Your task to perform on an android device: turn off wifi Image 0: 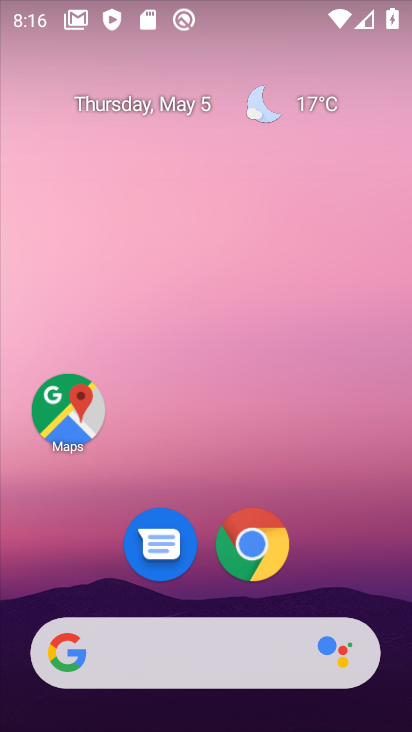
Step 0: drag from (351, 568) to (268, 1)
Your task to perform on an android device: turn off wifi Image 1: 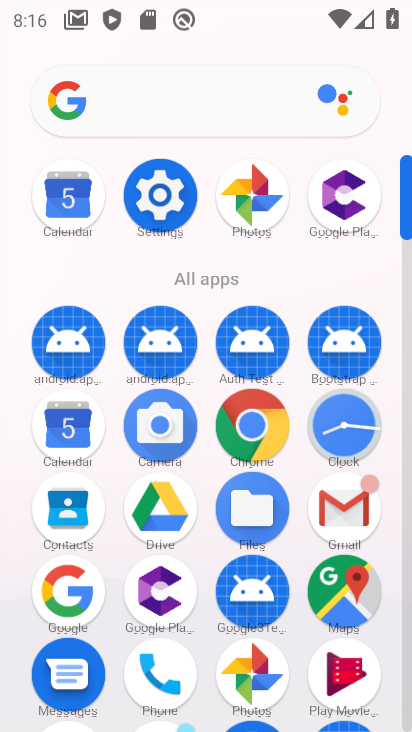
Step 1: click (162, 166)
Your task to perform on an android device: turn off wifi Image 2: 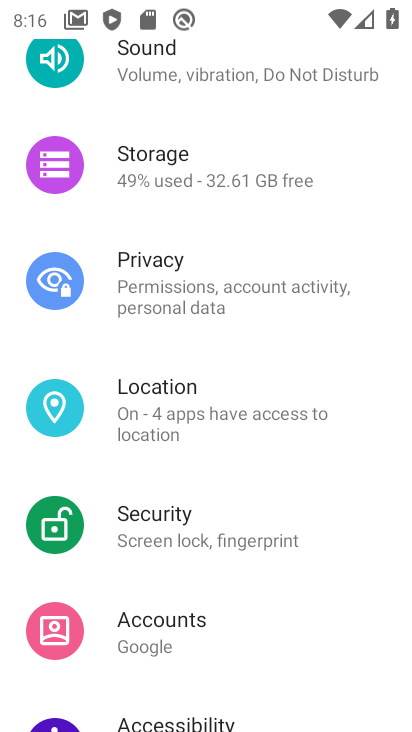
Step 2: drag from (197, 255) to (204, 729)
Your task to perform on an android device: turn off wifi Image 3: 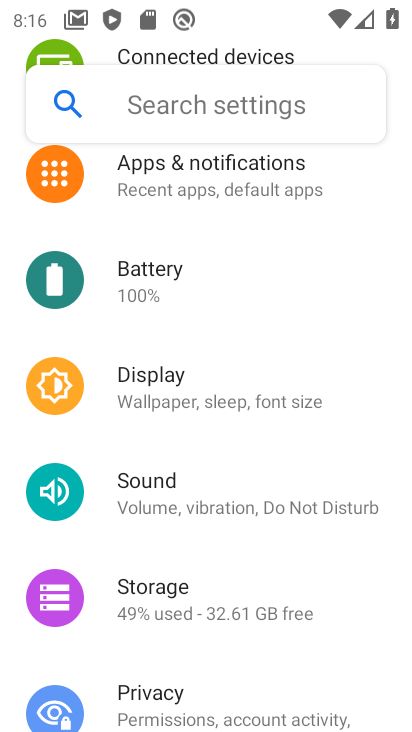
Step 3: drag from (228, 411) to (277, 643)
Your task to perform on an android device: turn off wifi Image 4: 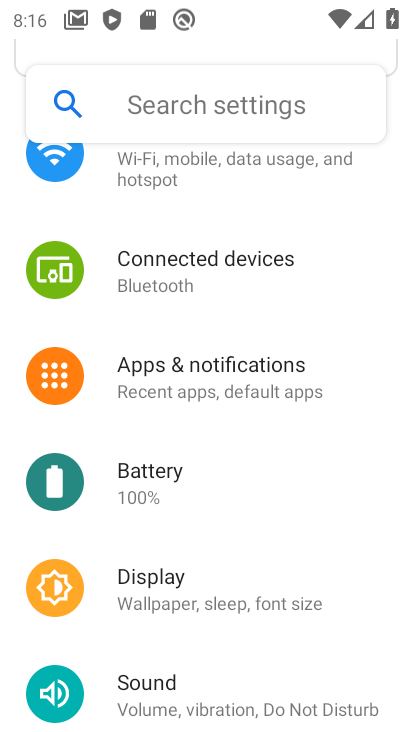
Step 4: click (236, 190)
Your task to perform on an android device: turn off wifi Image 5: 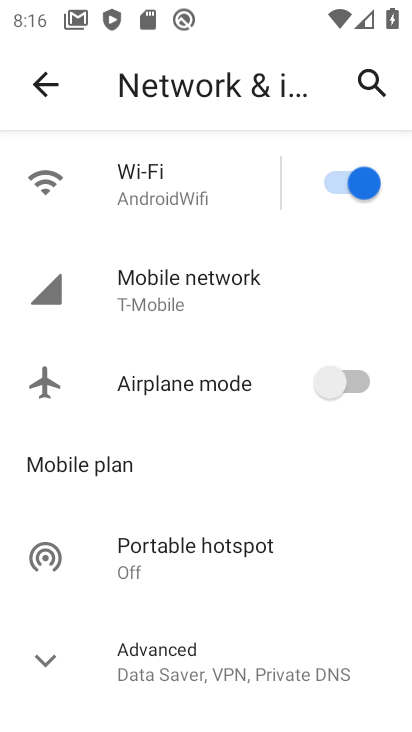
Step 5: click (358, 182)
Your task to perform on an android device: turn off wifi Image 6: 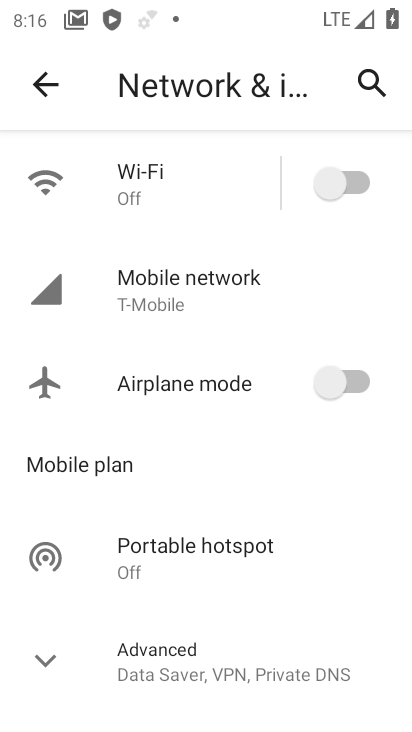
Step 6: task complete